Your task to perform on an android device: Turn on the flashlight Image 0: 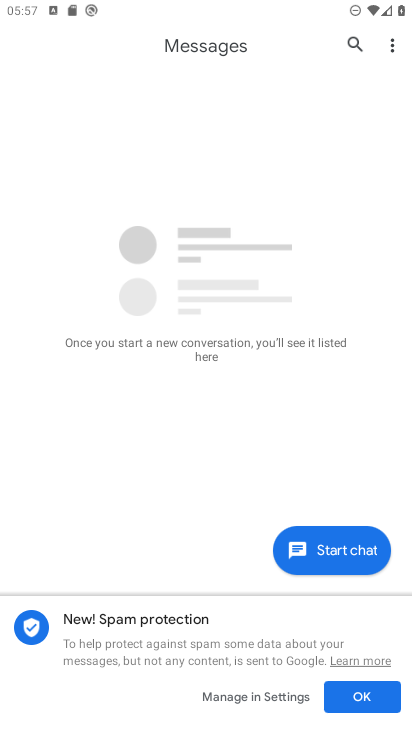
Step 0: press home button
Your task to perform on an android device: Turn on the flashlight Image 1: 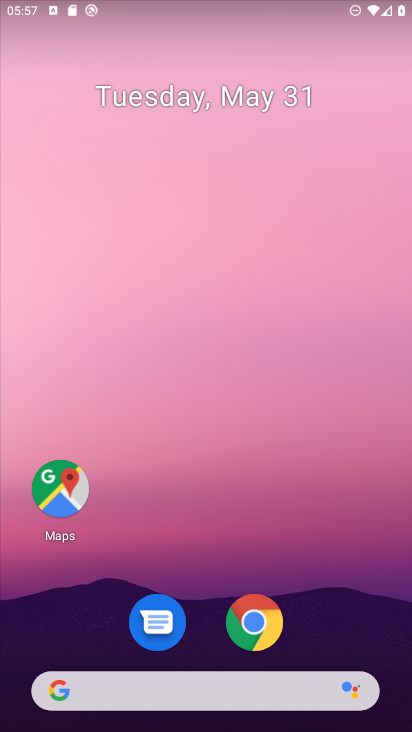
Step 1: task complete